Your task to perform on an android device: See recent photos Image 0: 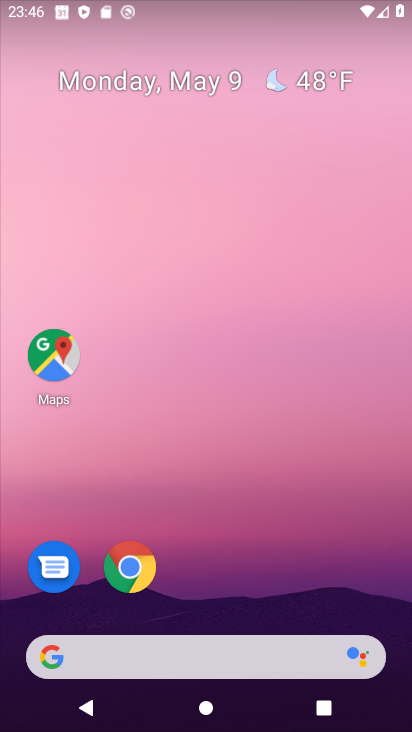
Step 0: drag from (210, 603) to (186, 50)
Your task to perform on an android device: See recent photos Image 1: 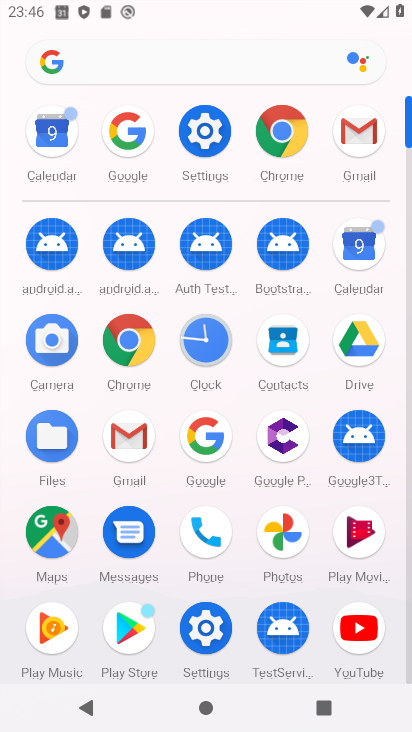
Step 1: click (284, 531)
Your task to perform on an android device: See recent photos Image 2: 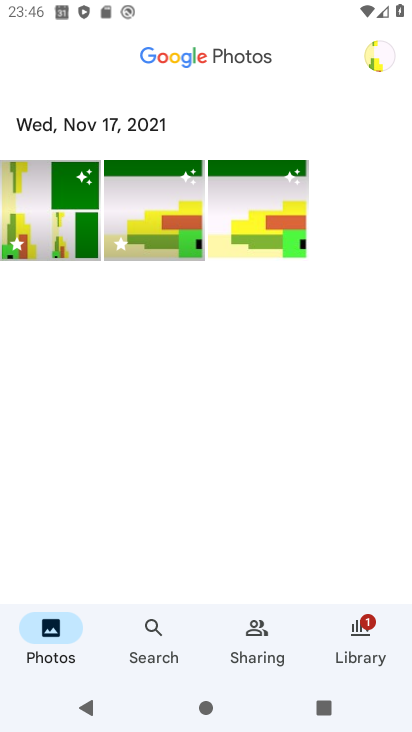
Step 2: click (139, 241)
Your task to perform on an android device: See recent photos Image 3: 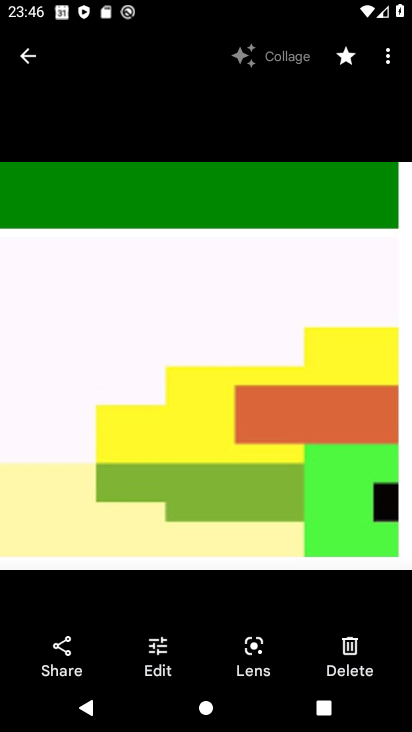
Step 3: task complete